Your task to perform on an android device: set an alarm Image 0: 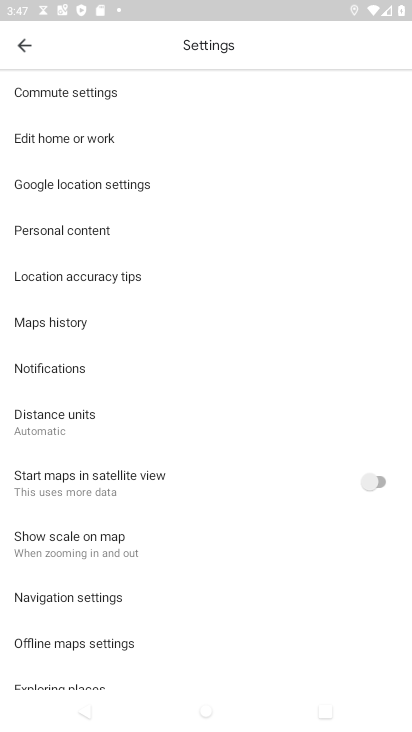
Step 0: press home button
Your task to perform on an android device: set an alarm Image 1: 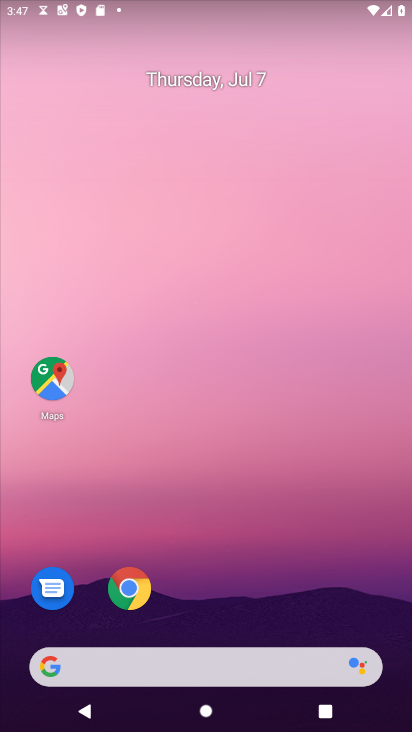
Step 1: drag from (235, 601) to (240, 85)
Your task to perform on an android device: set an alarm Image 2: 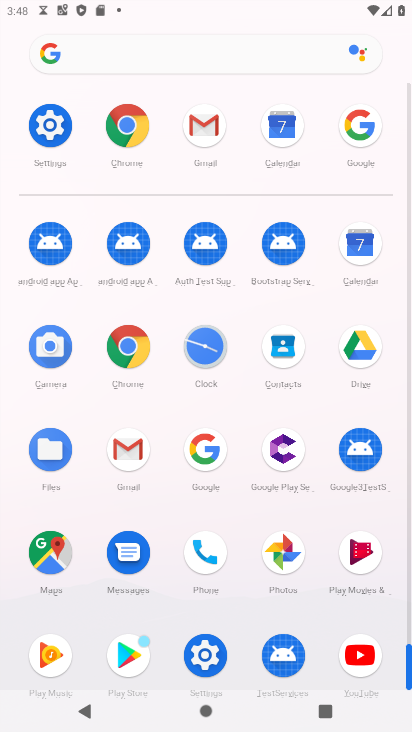
Step 2: click (206, 346)
Your task to perform on an android device: set an alarm Image 3: 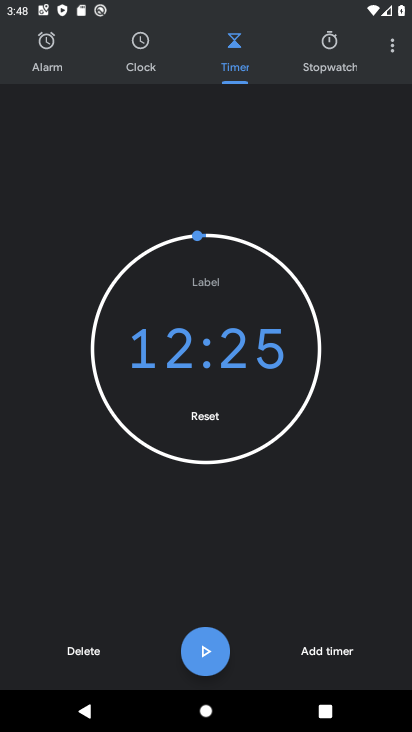
Step 3: click (48, 40)
Your task to perform on an android device: set an alarm Image 4: 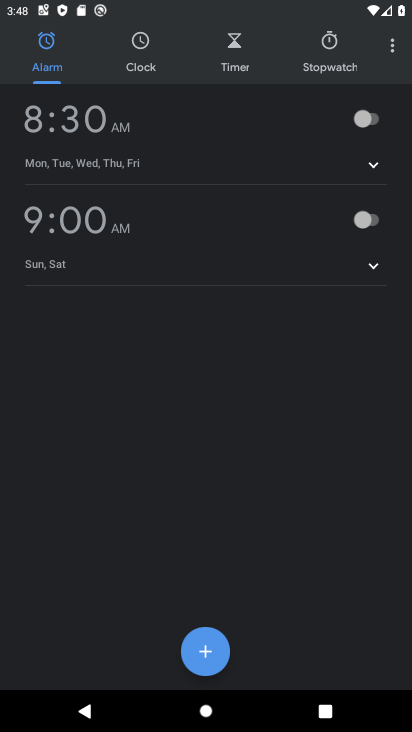
Step 4: click (206, 651)
Your task to perform on an android device: set an alarm Image 5: 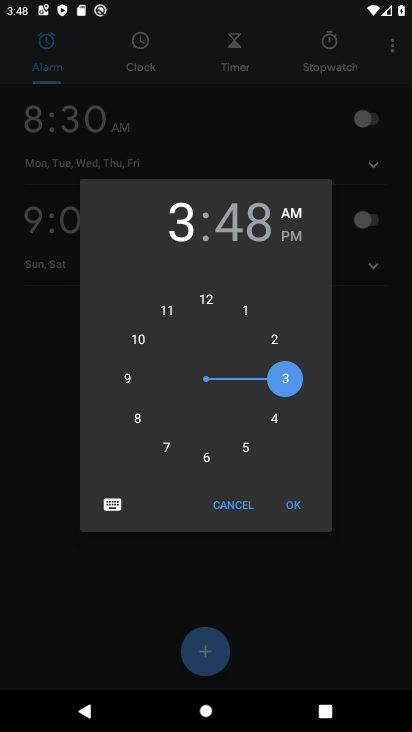
Step 5: click (142, 419)
Your task to perform on an android device: set an alarm Image 6: 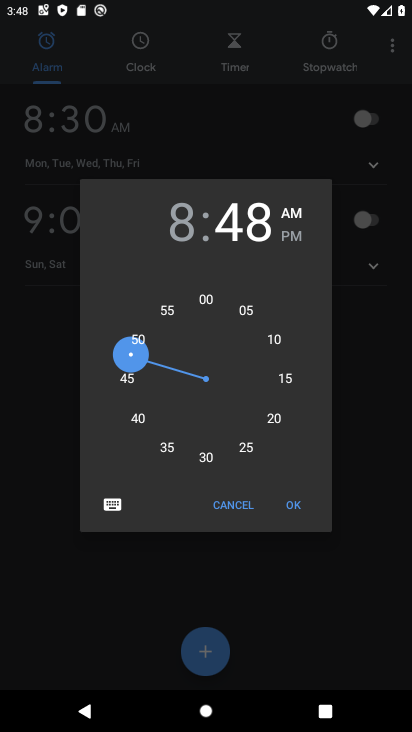
Step 6: click (142, 419)
Your task to perform on an android device: set an alarm Image 7: 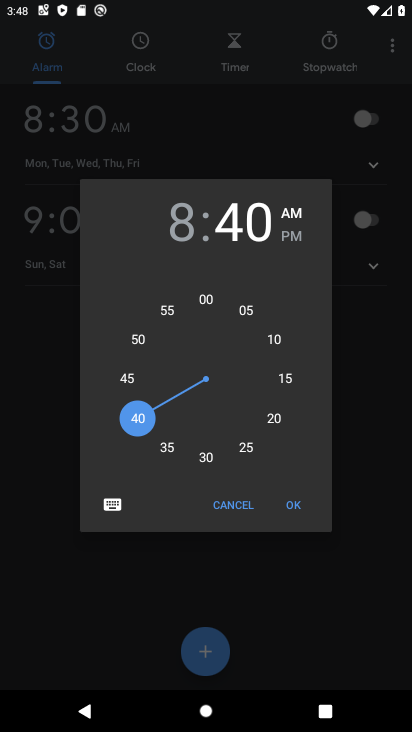
Step 7: click (296, 506)
Your task to perform on an android device: set an alarm Image 8: 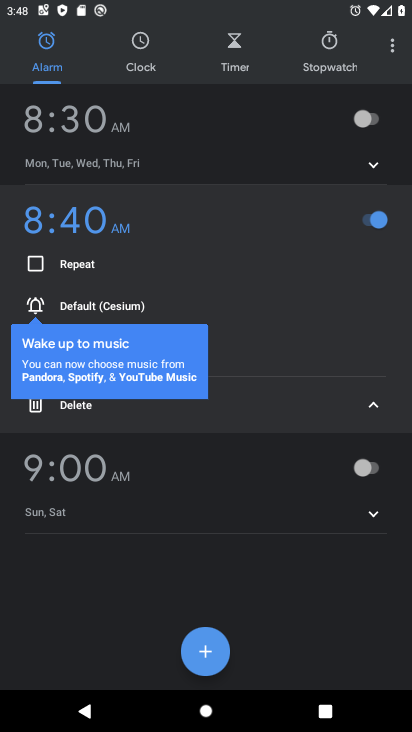
Step 8: click (373, 403)
Your task to perform on an android device: set an alarm Image 9: 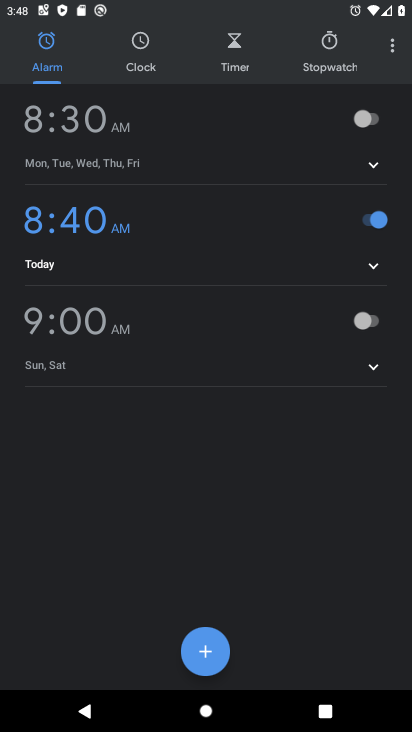
Step 9: task complete